Your task to perform on an android device: toggle javascript in the chrome app Image 0: 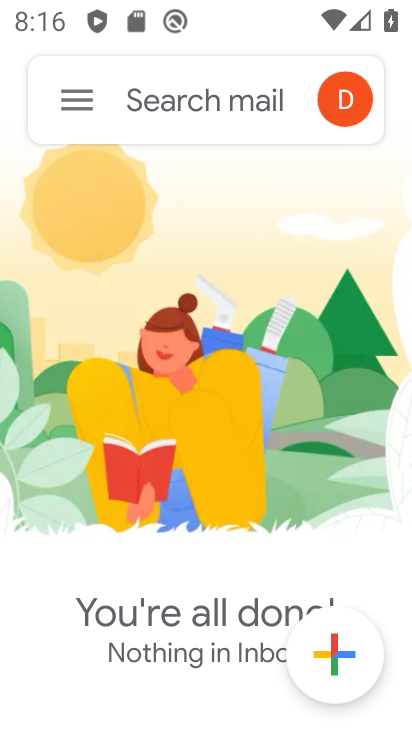
Step 0: press home button
Your task to perform on an android device: toggle javascript in the chrome app Image 1: 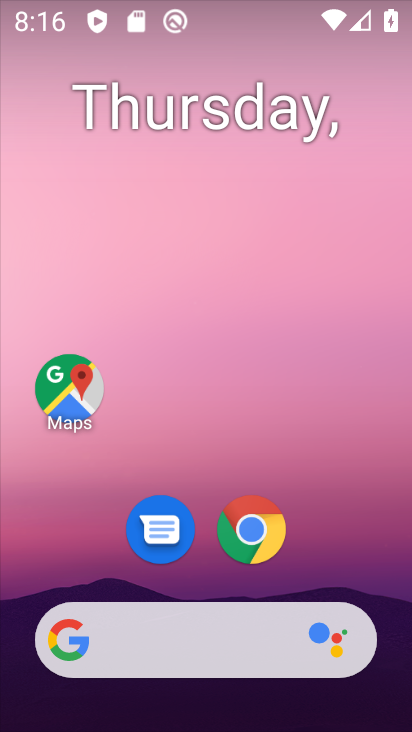
Step 1: click (260, 536)
Your task to perform on an android device: toggle javascript in the chrome app Image 2: 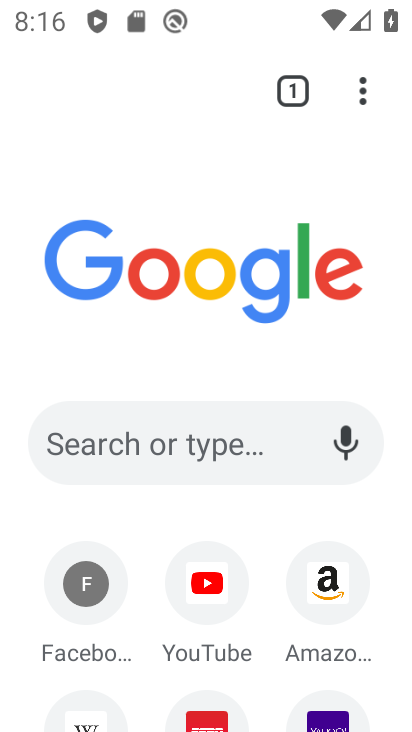
Step 2: drag from (359, 93) to (233, 573)
Your task to perform on an android device: toggle javascript in the chrome app Image 3: 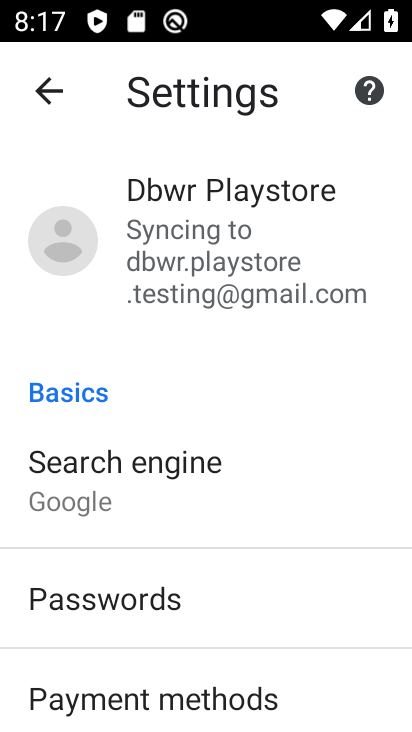
Step 3: drag from (252, 626) to (403, 165)
Your task to perform on an android device: toggle javascript in the chrome app Image 4: 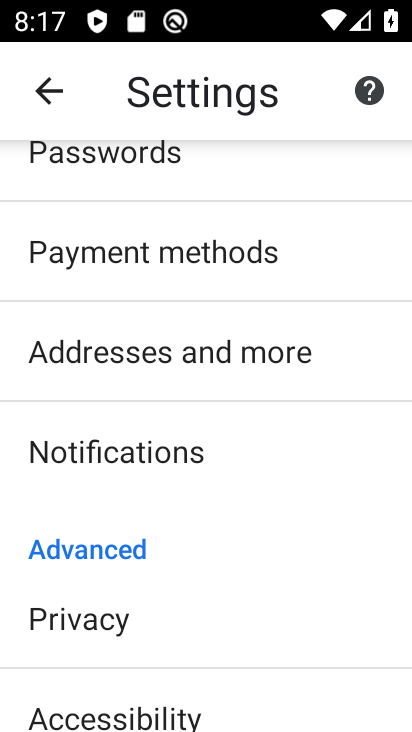
Step 4: drag from (231, 639) to (325, 188)
Your task to perform on an android device: toggle javascript in the chrome app Image 5: 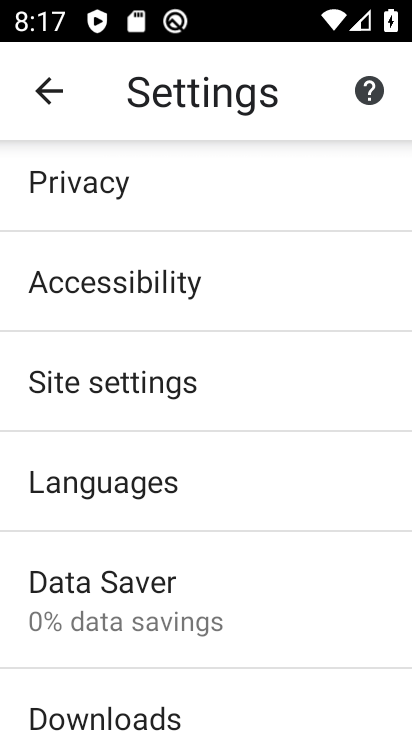
Step 5: click (168, 380)
Your task to perform on an android device: toggle javascript in the chrome app Image 6: 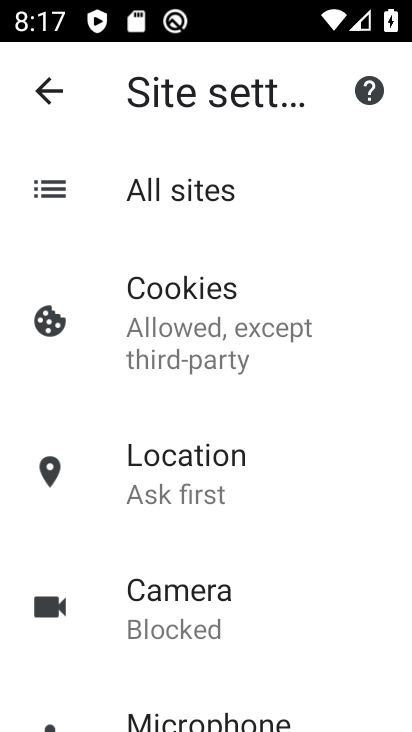
Step 6: drag from (261, 651) to (337, 248)
Your task to perform on an android device: toggle javascript in the chrome app Image 7: 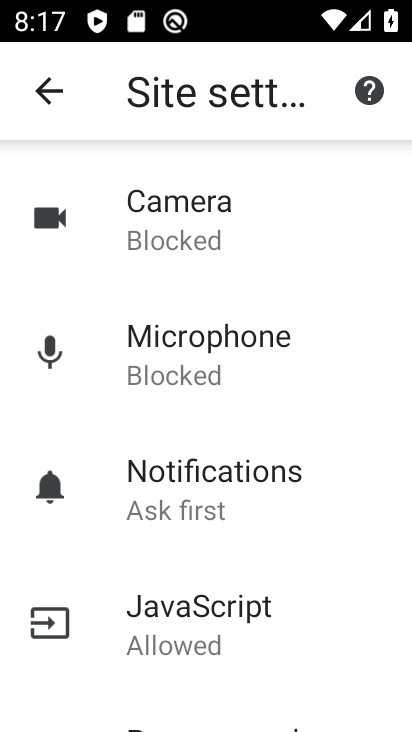
Step 7: click (196, 617)
Your task to perform on an android device: toggle javascript in the chrome app Image 8: 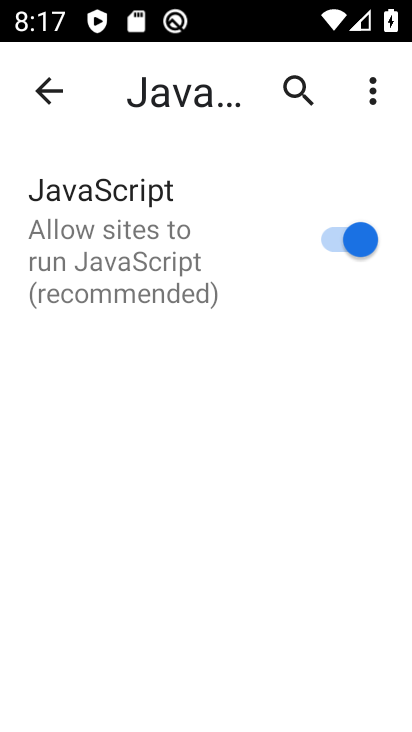
Step 8: click (338, 243)
Your task to perform on an android device: toggle javascript in the chrome app Image 9: 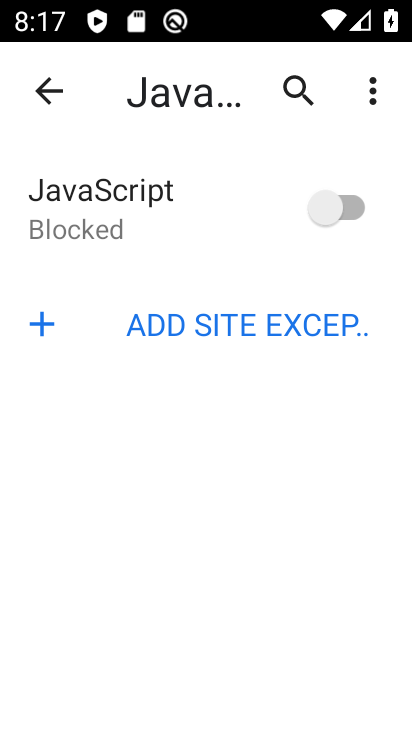
Step 9: task complete